Your task to perform on an android device: change the clock display to digital Image 0: 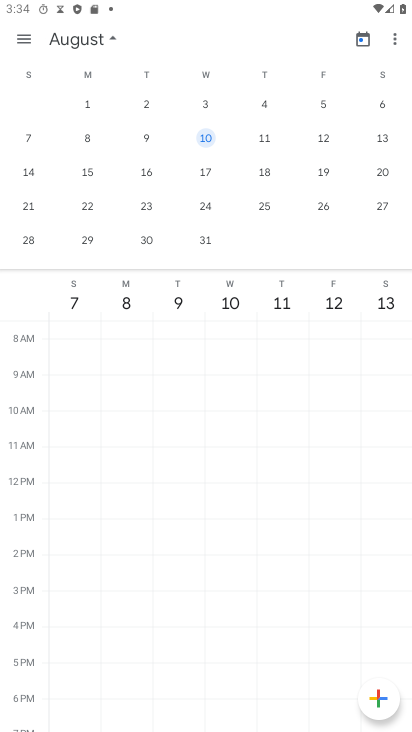
Step 0: press home button
Your task to perform on an android device: change the clock display to digital Image 1: 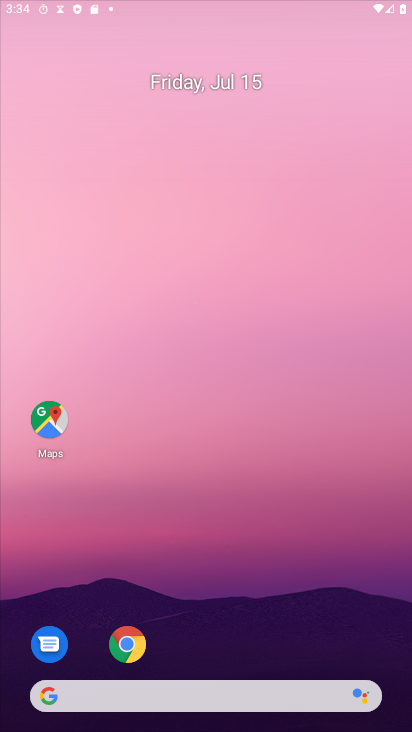
Step 1: drag from (271, 628) to (259, 66)
Your task to perform on an android device: change the clock display to digital Image 2: 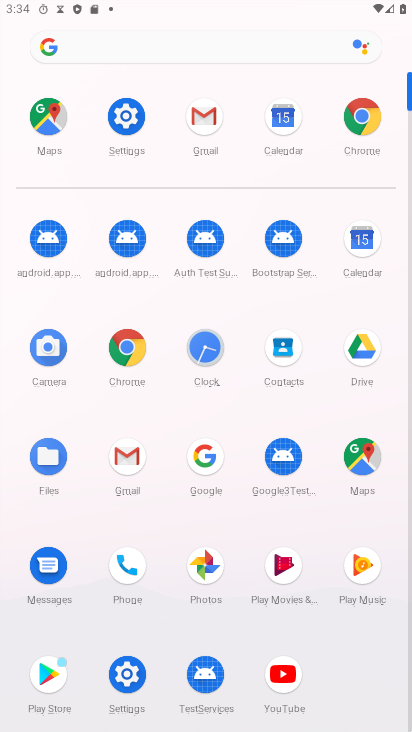
Step 2: click (213, 347)
Your task to perform on an android device: change the clock display to digital Image 3: 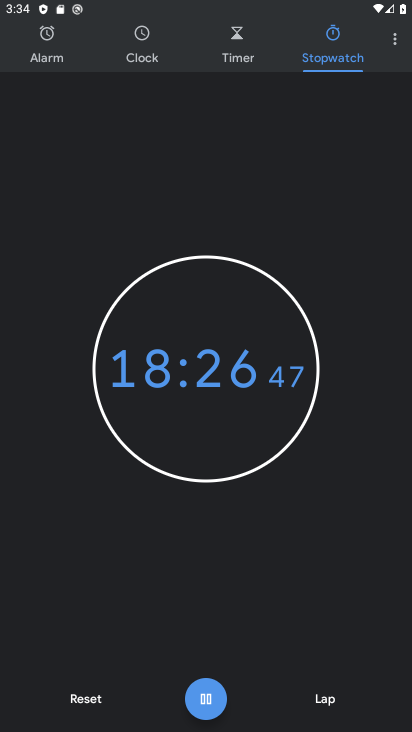
Step 3: click (391, 35)
Your task to perform on an android device: change the clock display to digital Image 4: 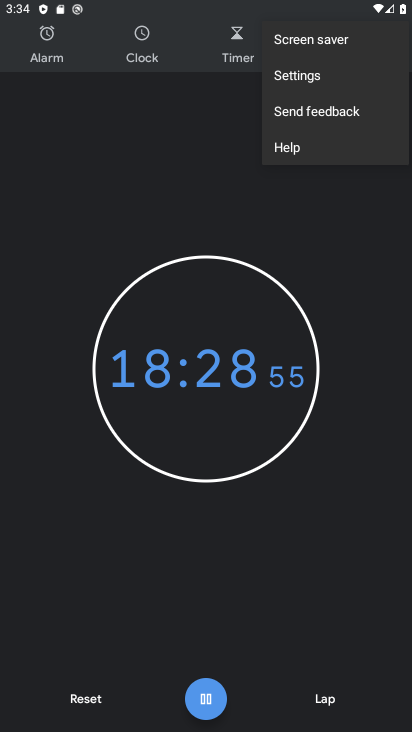
Step 4: click (318, 71)
Your task to perform on an android device: change the clock display to digital Image 5: 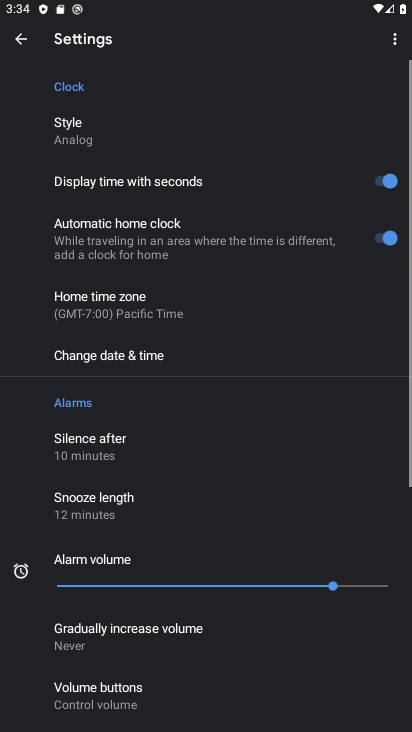
Step 5: click (88, 121)
Your task to perform on an android device: change the clock display to digital Image 6: 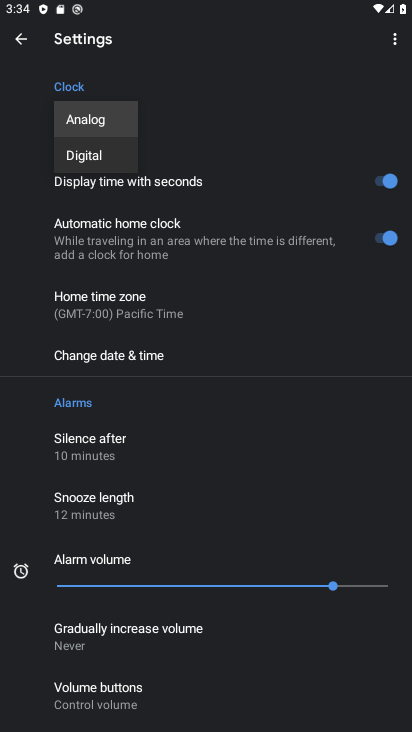
Step 6: click (96, 157)
Your task to perform on an android device: change the clock display to digital Image 7: 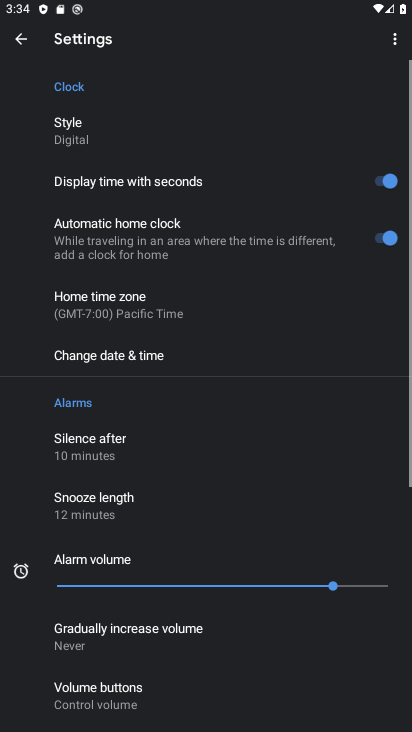
Step 7: task complete